Your task to perform on an android device: set the timer Image 0: 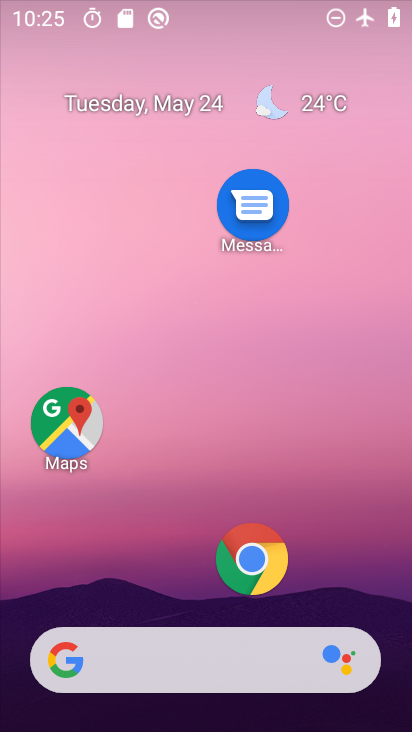
Step 0: click (243, 565)
Your task to perform on an android device: set the timer Image 1: 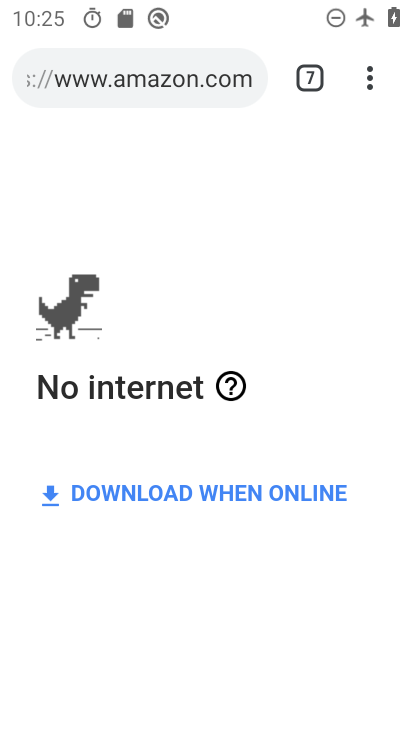
Step 1: press home button
Your task to perform on an android device: set the timer Image 2: 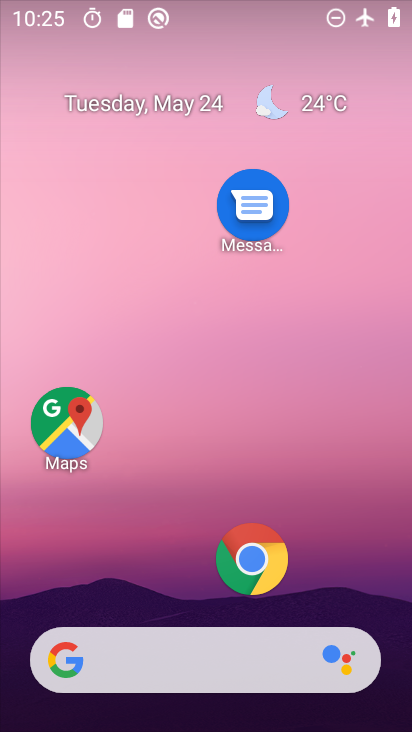
Step 2: drag from (200, 538) to (198, 240)
Your task to perform on an android device: set the timer Image 3: 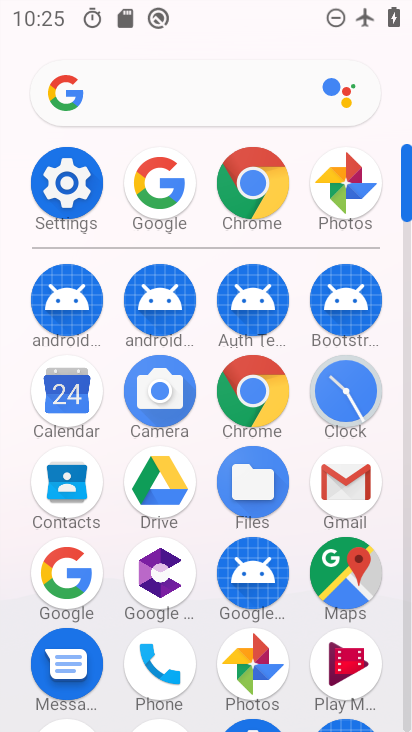
Step 3: click (318, 384)
Your task to perform on an android device: set the timer Image 4: 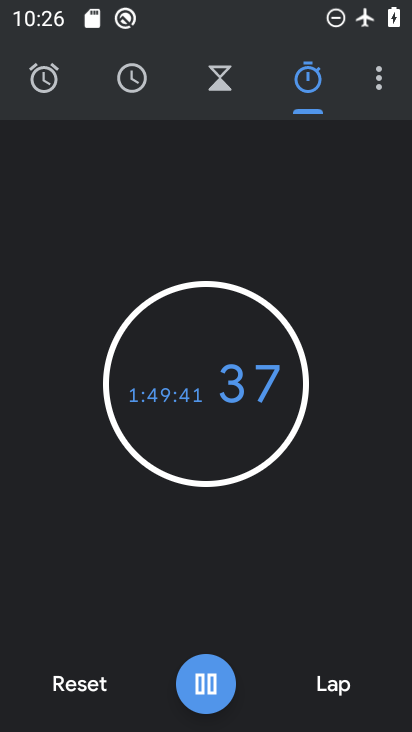
Step 4: click (224, 78)
Your task to perform on an android device: set the timer Image 5: 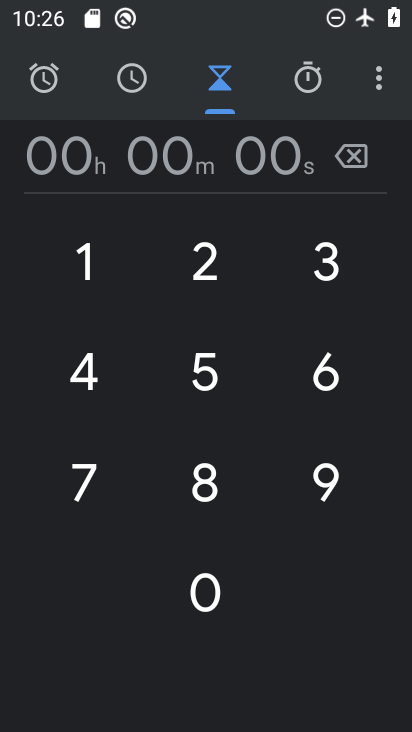
Step 5: click (240, 160)
Your task to perform on an android device: set the timer Image 6: 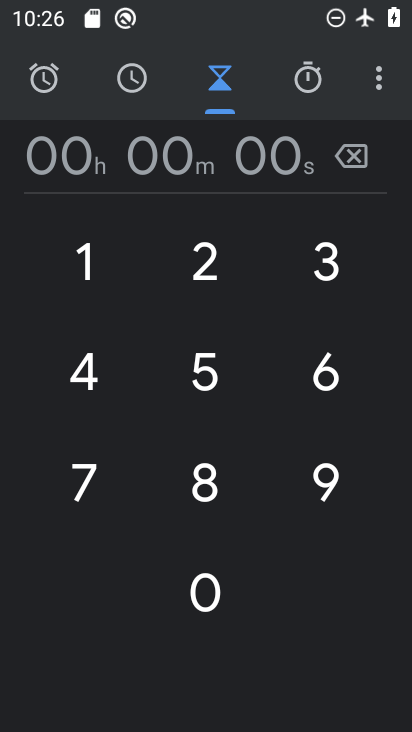
Step 6: type "11"
Your task to perform on an android device: set the timer Image 7: 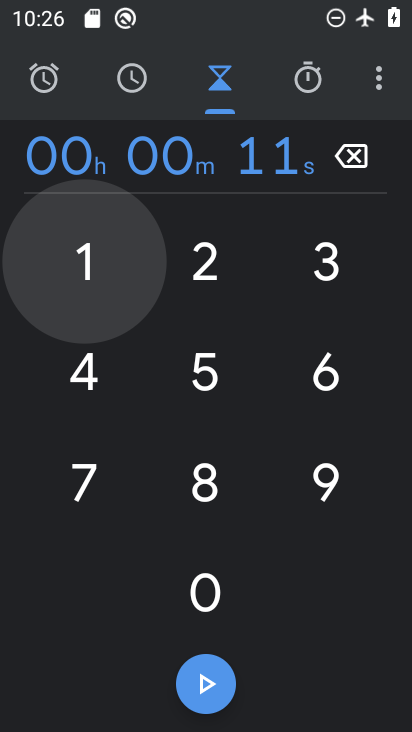
Step 7: click (213, 673)
Your task to perform on an android device: set the timer Image 8: 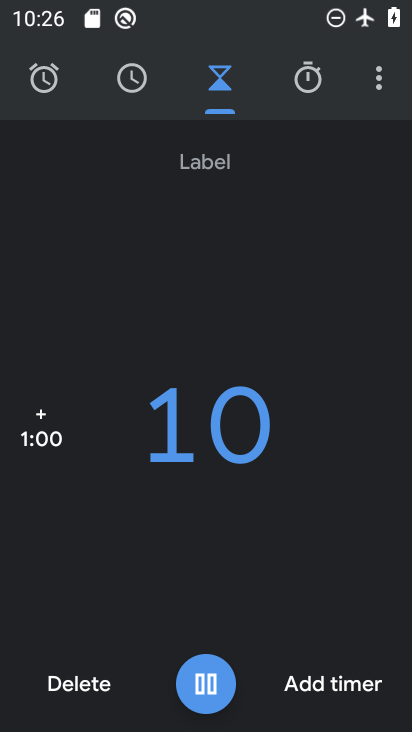
Step 8: task complete